Your task to perform on an android device: turn off translation in the chrome app Image 0: 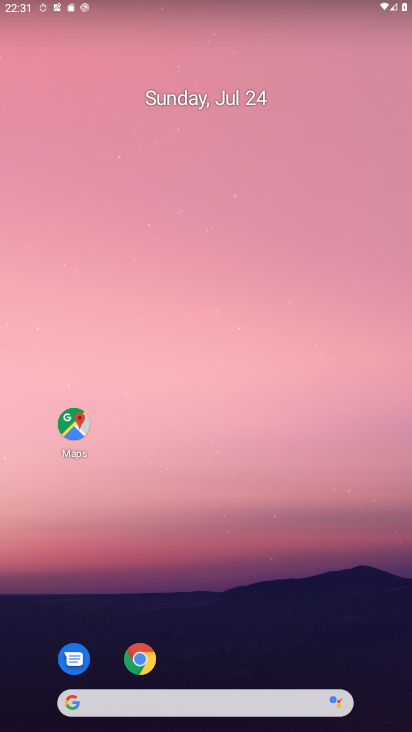
Step 0: drag from (207, 592) to (200, 136)
Your task to perform on an android device: turn off translation in the chrome app Image 1: 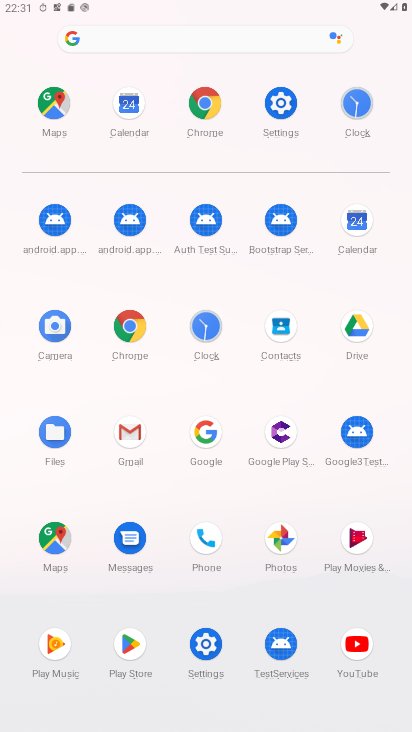
Step 1: click (207, 91)
Your task to perform on an android device: turn off translation in the chrome app Image 2: 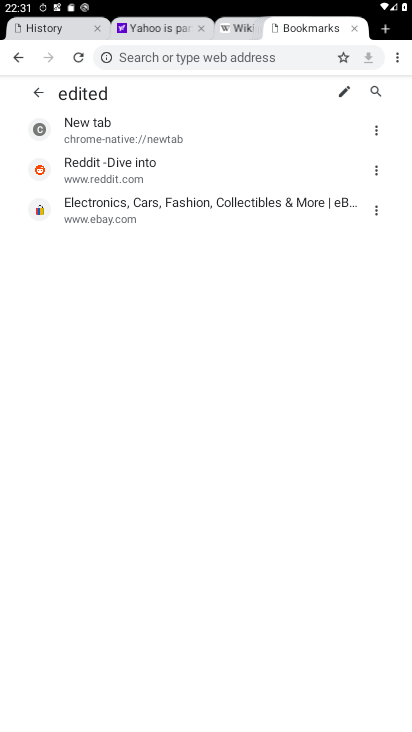
Step 2: click (399, 59)
Your task to perform on an android device: turn off translation in the chrome app Image 3: 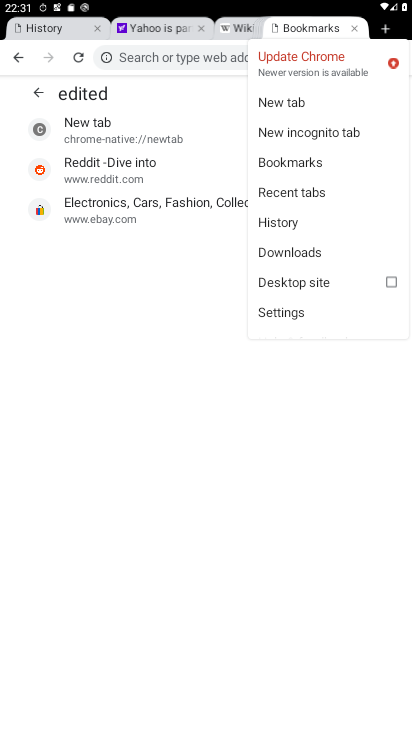
Step 3: click (287, 310)
Your task to perform on an android device: turn off translation in the chrome app Image 4: 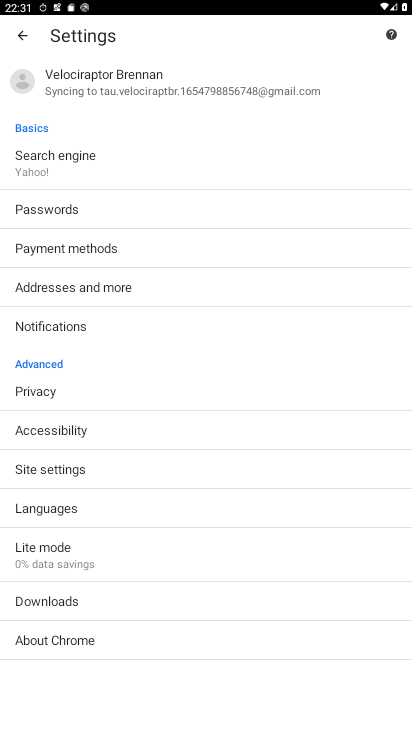
Step 4: click (57, 509)
Your task to perform on an android device: turn off translation in the chrome app Image 5: 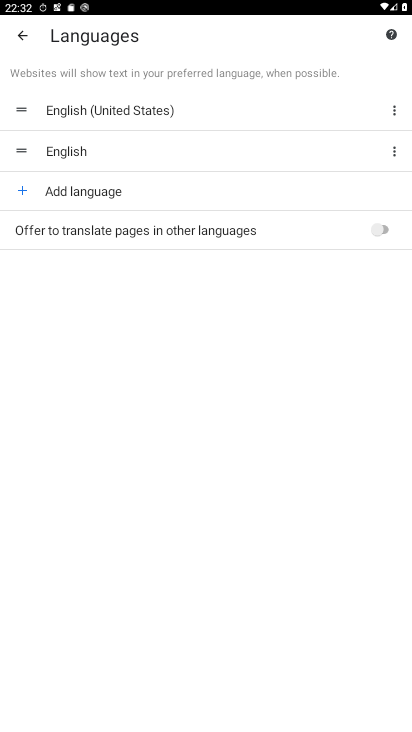
Step 5: task complete